Your task to perform on an android device: check out phone information Image 0: 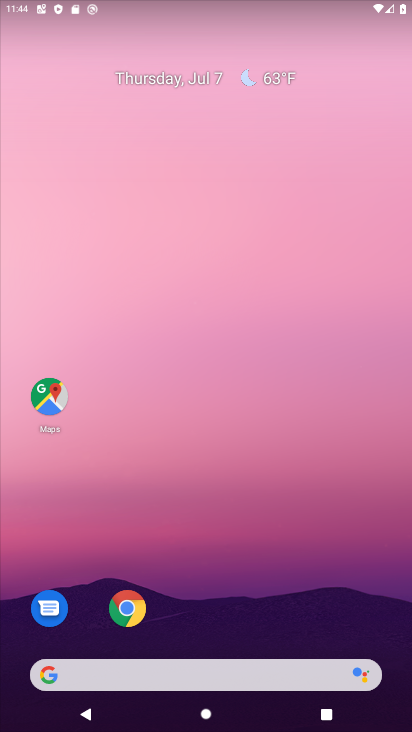
Step 0: drag from (79, 520) to (352, 106)
Your task to perform on an android device: check out phone information Image 1: 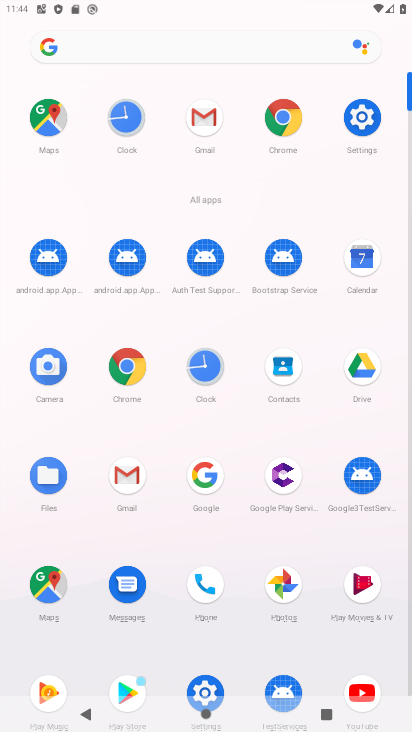
Step 1: click (191, 582)
Your task to perform on an android device: check out phone information Image 2: 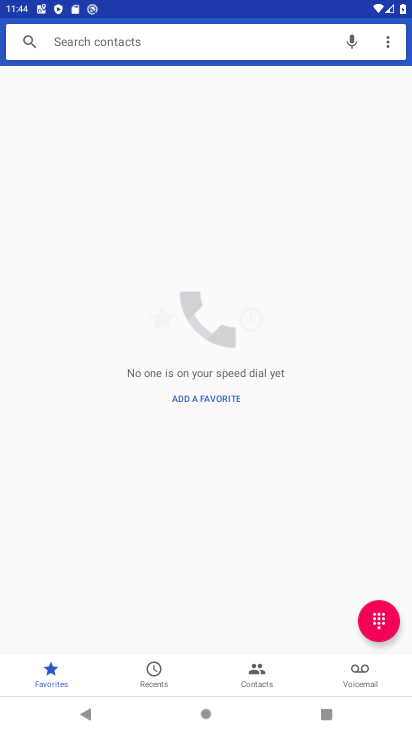
Step 2: task complete